Your task to perform on an android device: open app "PlayWell" (install if not already installed) Image 0: 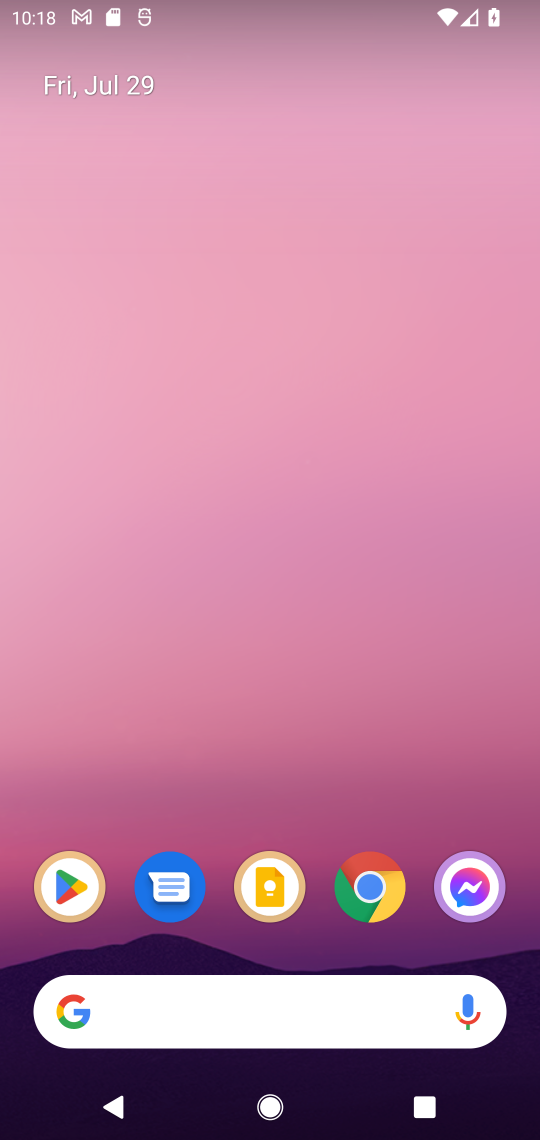
Step 0: click (61, 906)
Your task to perform on an android device: open app "PlayWell" (install if not already installed) Image 1: 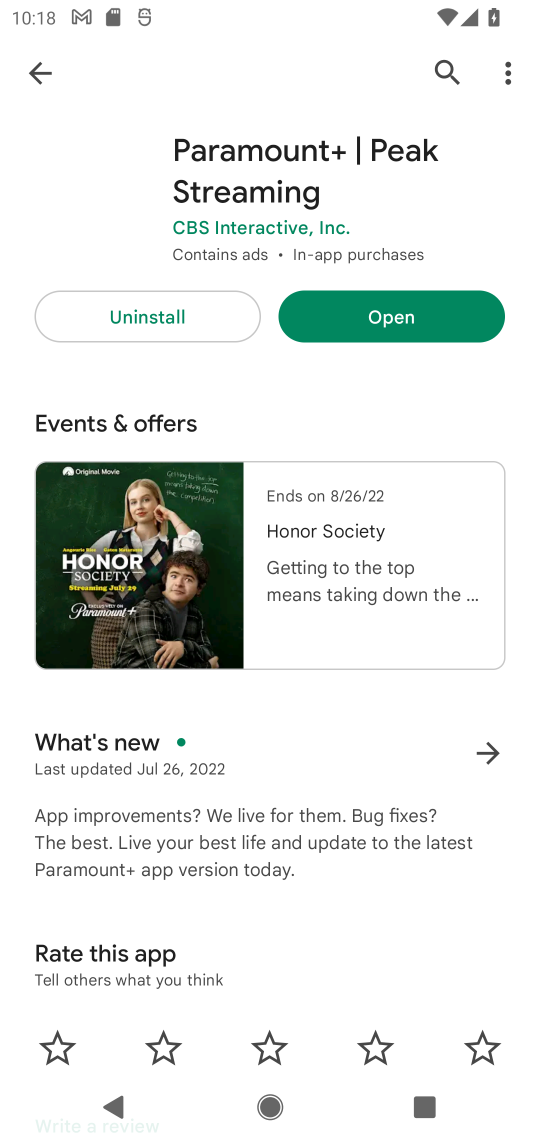
Step 1: click (441, 62)
Your task to perform on an android device: open app "PlayWell" (install if not already installed) Image 2: 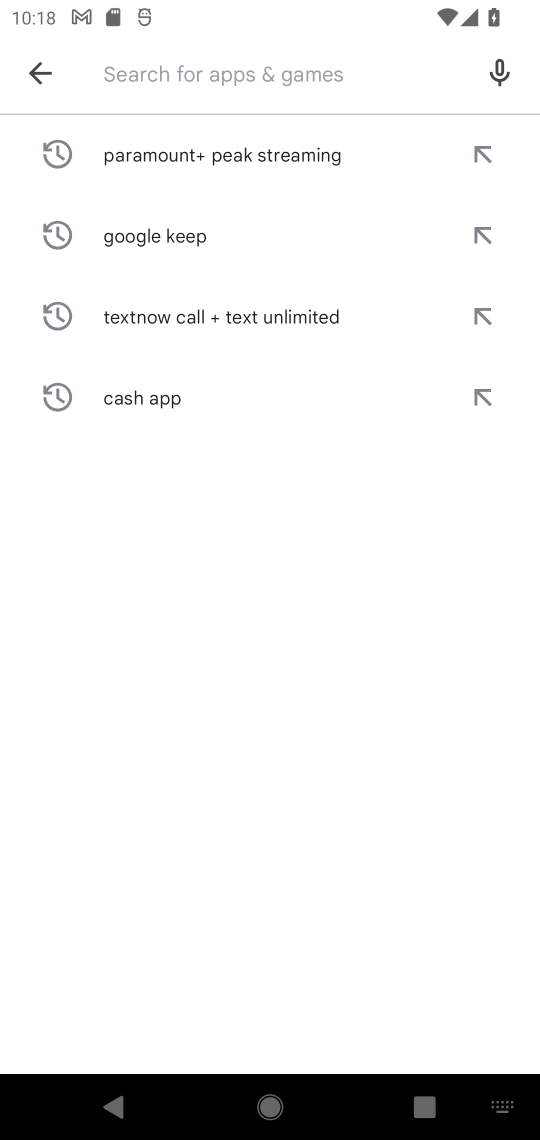
Step 2: type "playwell"
Your task to perform on an android device: open app "PlayWell" (install if not already installed) Image 3: 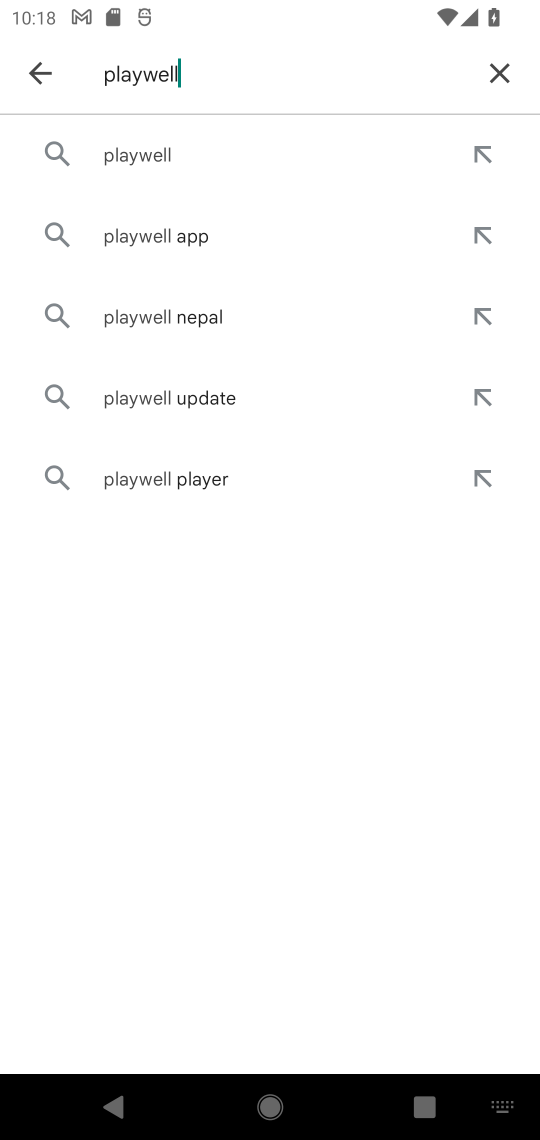
Step 3: click (369, 135)
Your task to perform on an android device: open app "PlayWell" (install if not already installed) Image 4: 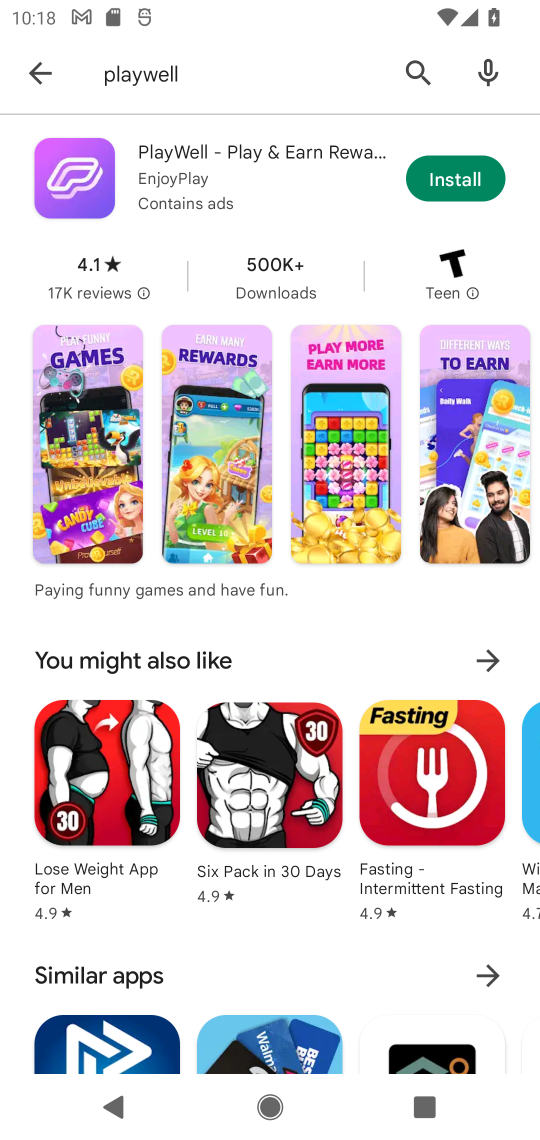
Step 4: click (232, 138)
Your task to perform on an android device: open app "PlayWell" (install if not already installed) Image 5: 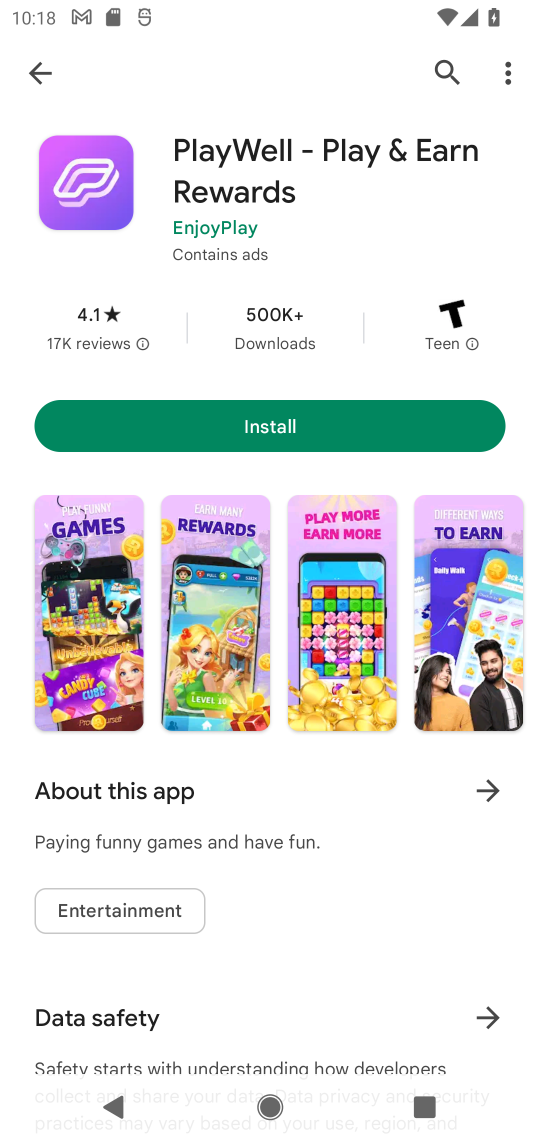
Step 5: click (282, 425)
Your task to perform on an android device: open app "PlayWell" (install if not already installed) Image 6: 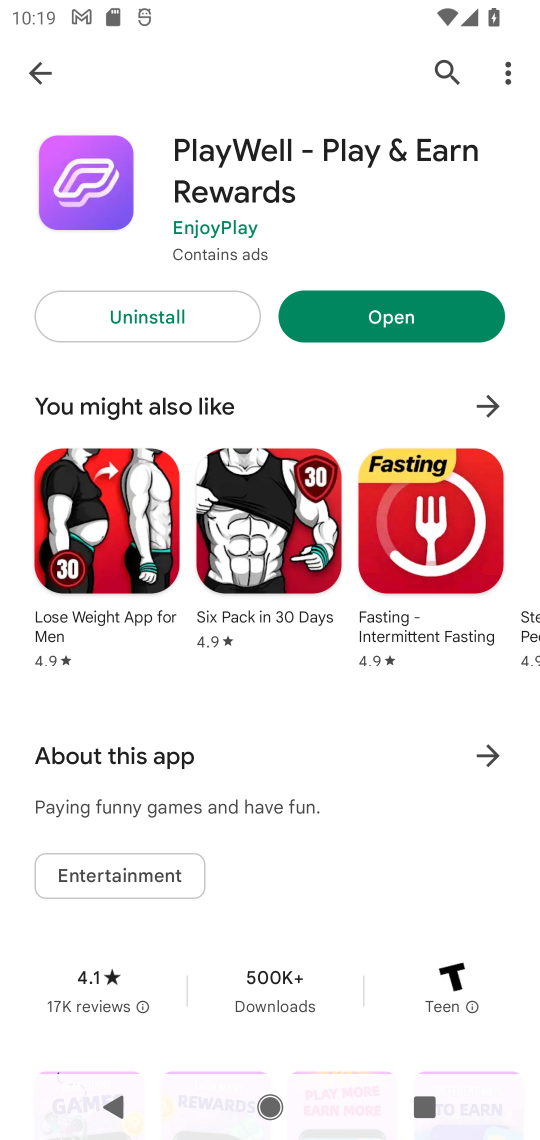
Step 6: click (451, 307)
Your task to perform on an android device: open app "PlayWell" (install if not already installed) Image 7: 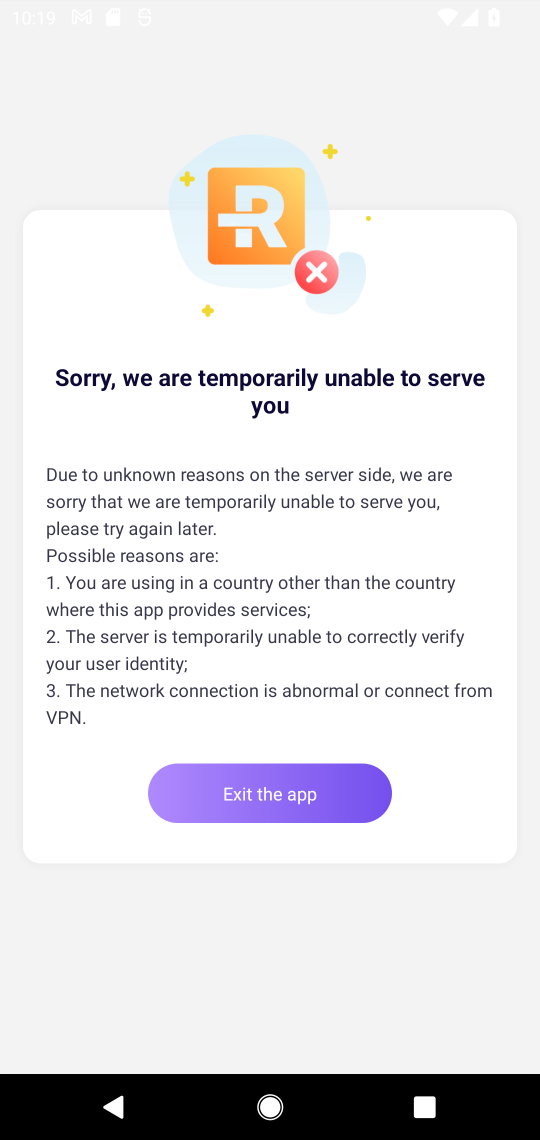
Step 7: task complete